Your task to perform on an android device: turn off priority inbox in the gmail app Image 0: 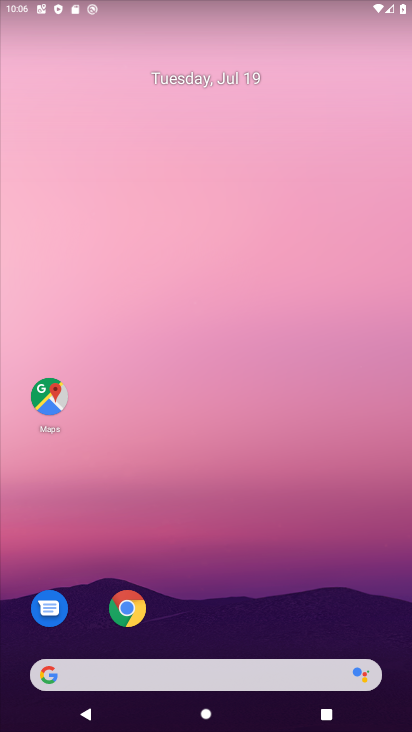
Step 0: drag from (234, 630) to (199, 63)
Your task to perform on an android device: turn off priority inbox in the gmail app Image 1: 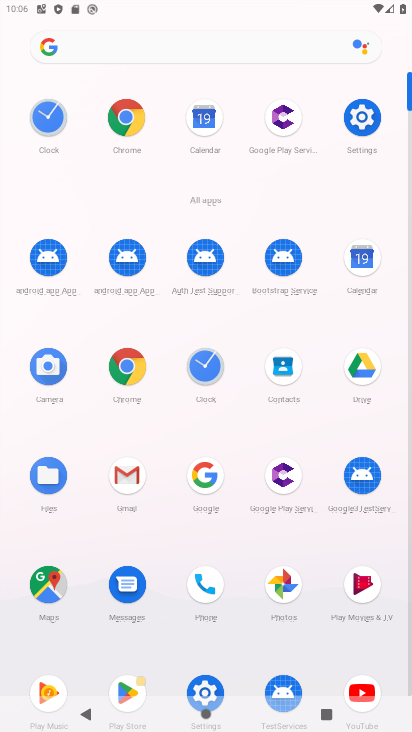
Step 1: click (123, 475)
Your task to perform on an android device: turn off priority inbox in the gmail app Image 2: 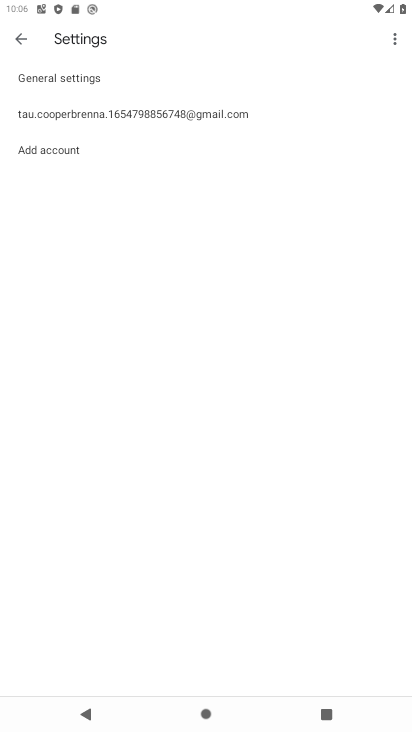
Step 2: click (41, 83)
Your task to perform on an android device: turn off priority inbox in the gmail app Image 3: 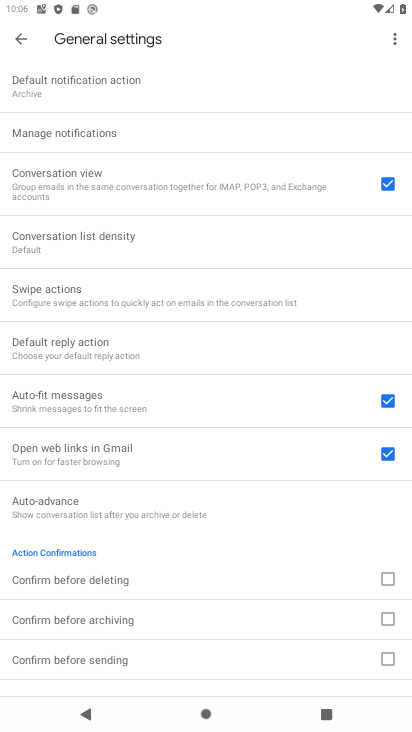
Step 3: click (17, 37)
Your task to perform on an android device: turn off priority inbox in the gmail app Image 4: 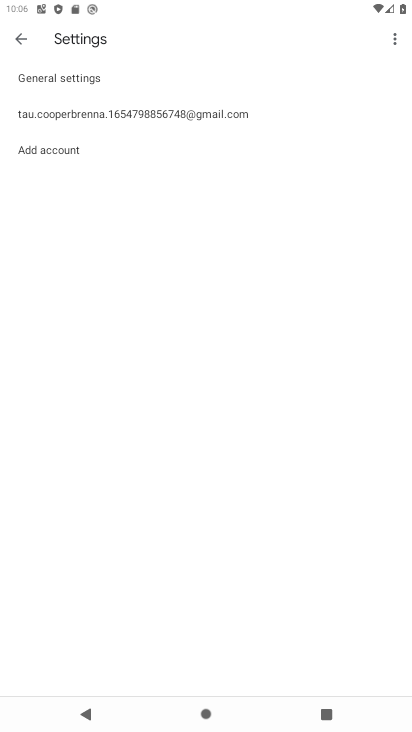
Step 4: click (46, 109)
Your task to perform on an android device: turn off priority inbox in the gmail app Image 5: 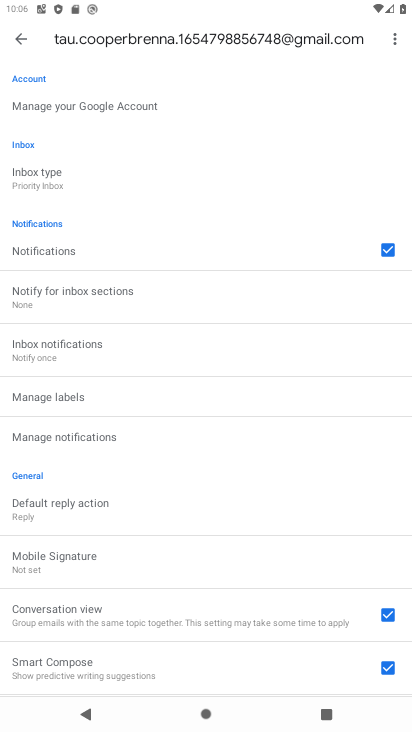
Step 5: click (36, 172)
Your task to perform on an android device: turn off priority inbox in the gmail app Image 6: 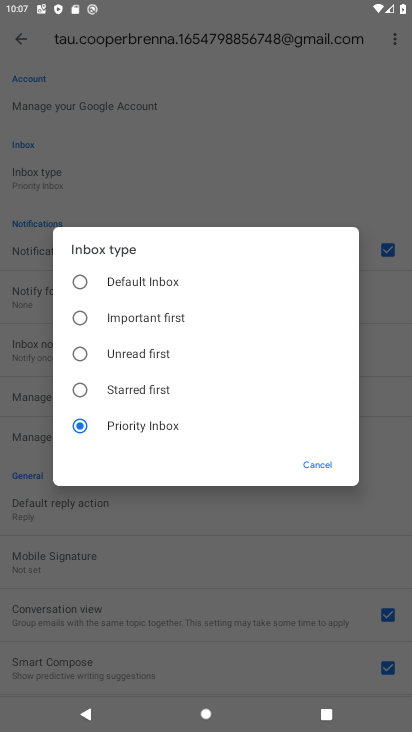
Step 6: click (92, 286)
Your task to perform on an android device: turn off priority inbox in the gmail app Image 7: 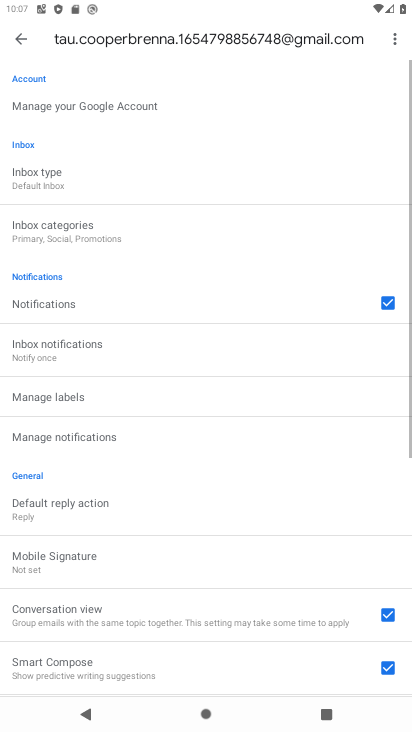
Step 7: task complete